Your task to perform on an android device: turn off notifications in google photos Image 0: 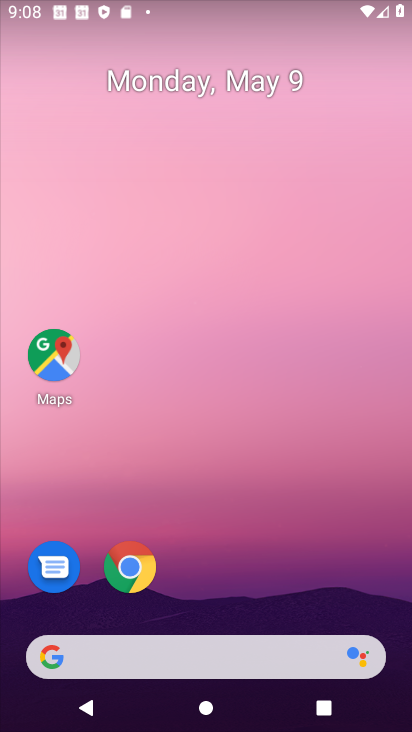
Step 0: drag from (166, 648) to (202, 266)
Your task to perform on an android device: turn off notifications in google photos Image 1: 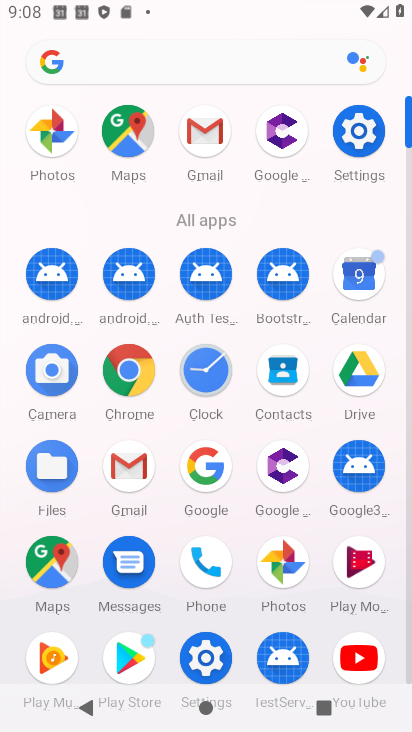
Step 1: click (296, 558)
Your task to perform on an android device: turn off notifications in google photos Image 2: 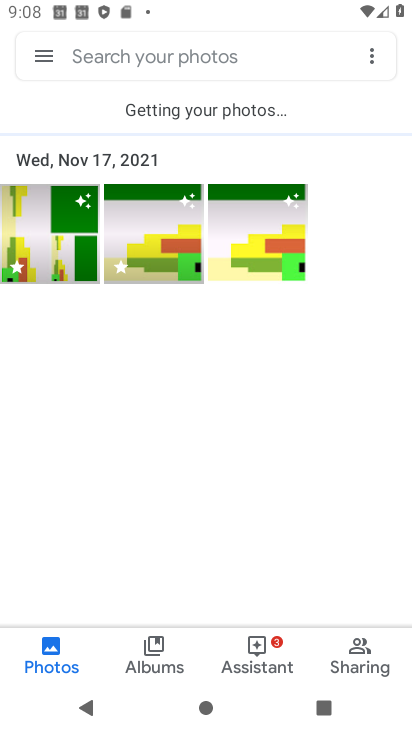
Step 2: click (49, 51)
Your task to perform on an android device: turn off notifications in google photos Image 3: 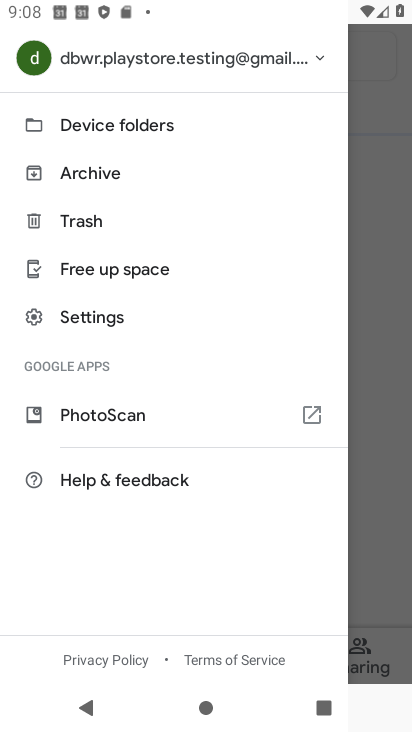
Step 3: click (95, 312)
Your task to perform on an android device: turn off notifications in google photos Image 4: 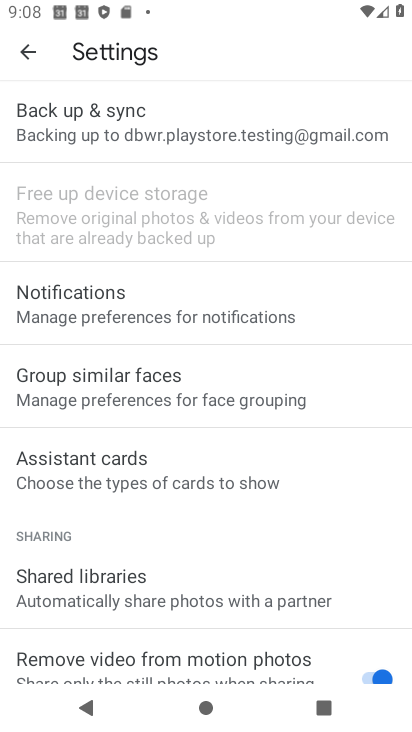
Step 4: click (77, 289)
Your task to perform on an android device: turn off notifications in google photos Image 5: 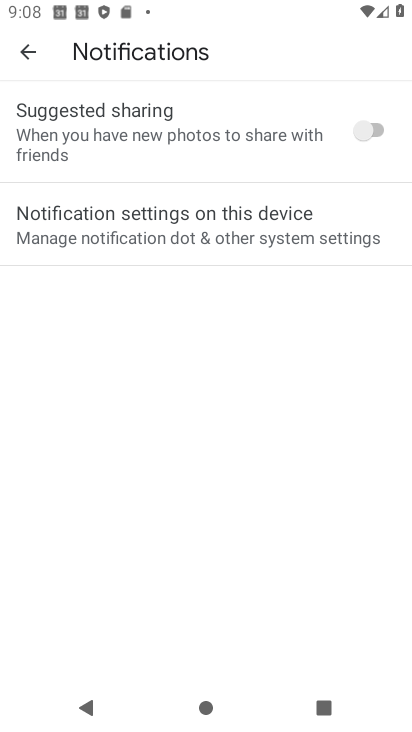
Step 5: click (235, 230)
Your task to perform on an android device: turn off notifications in google photos Image 6: 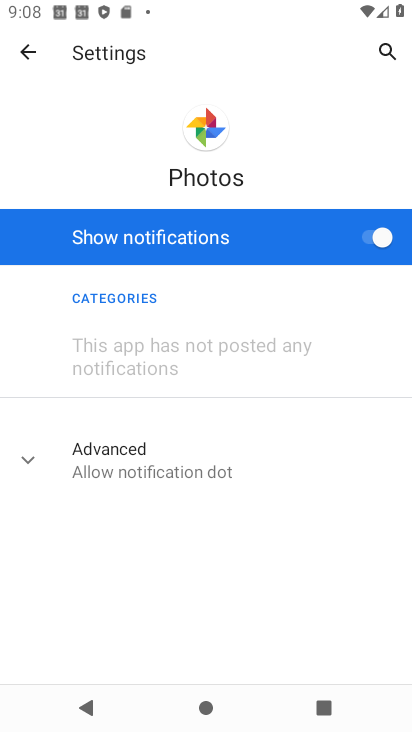
Step 6: click (388, 226)
Your task to perform on an android device: turn off notifications in google photos Image 7: 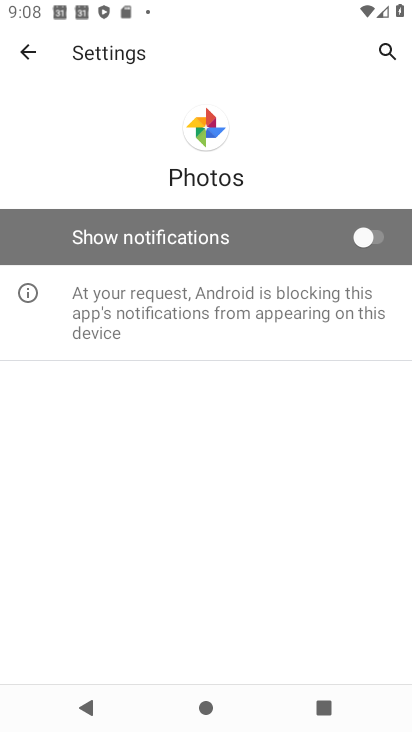
Step 7: task complete